Your task to perform on an android device: Search for Mexican restaurants on Maps Image 0: 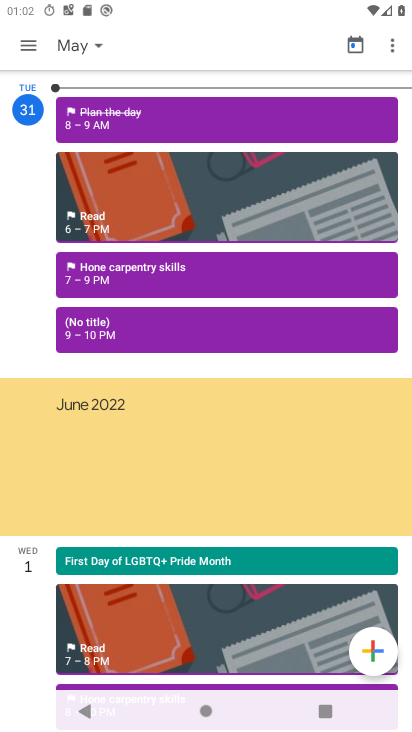
Step 0: press home button
Your task to perform on an android device: Search for Mexican restaurants on Maps Image 1: 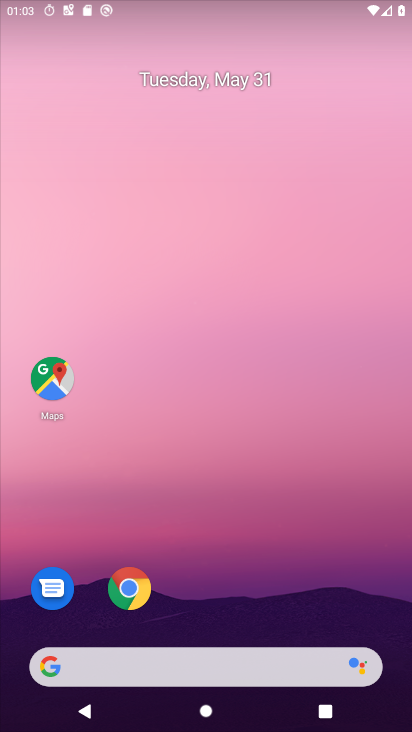
Step 1: drag from (146, 629) to (306, 28)
Your task to perform on an android device: Search for Mexican restaurants on Maps Image 2: 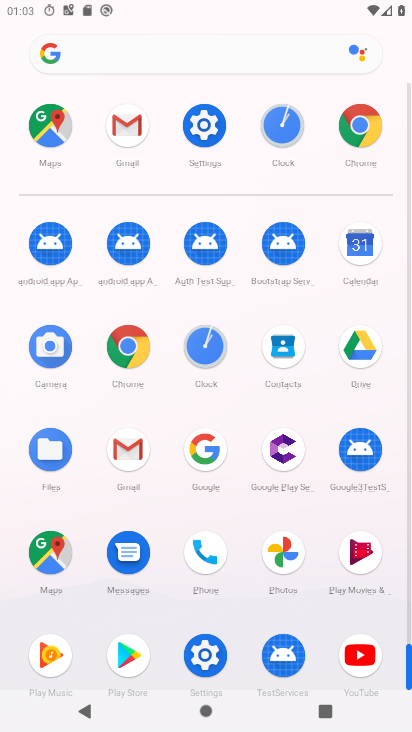
Step 2: click (52, 565)
Your task to perform on an android device: Search for Mexican restaurants on Maps Image 3: 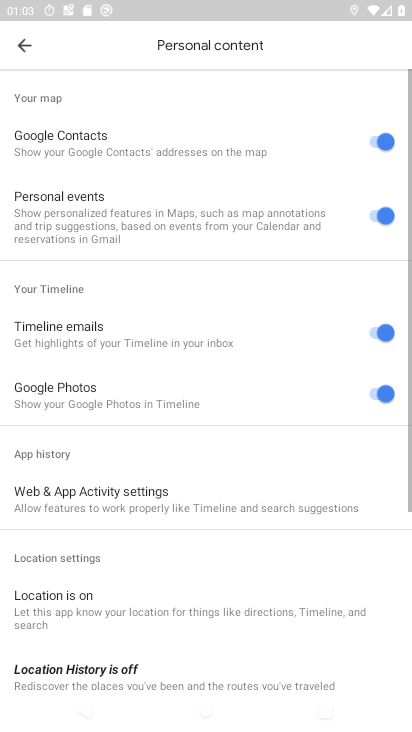
Step 3: press back button
Your task to perform on an android device: Search for Mexican restaurants on Maps Image 4: 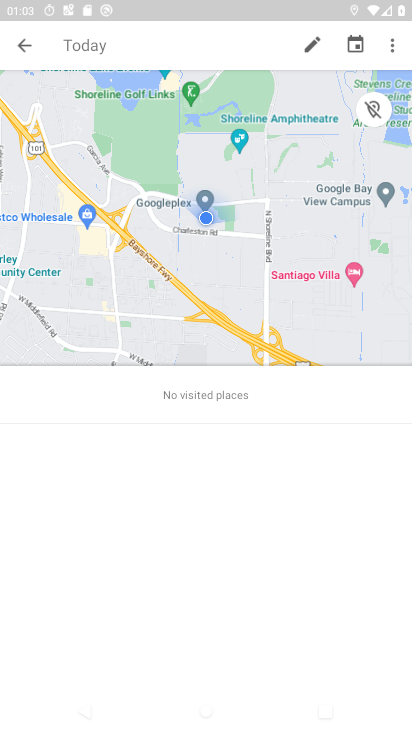
Step 4: press back button
Your task to perform on an android device: Search for Mexican restaurants on Maps Image 5: 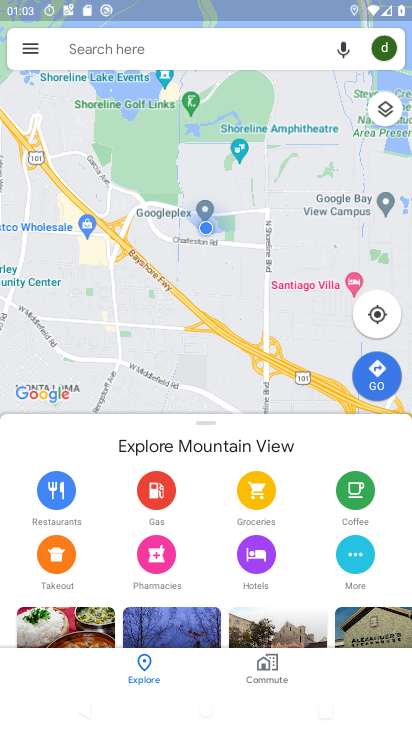
Step 5: click (209, 45)
Your task to perform on an android device: Search for Mexican restaurants on Maps Image 6: 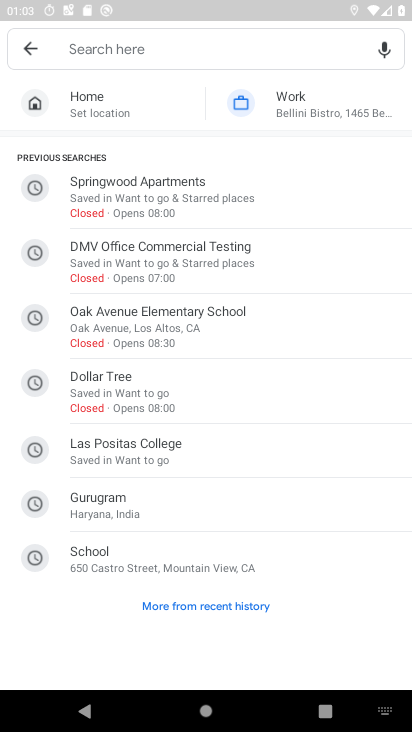
Step 6: type "mexican restaurant"
Your task to perform on an android device: Search for Mexican restaurants on Maps Image 7: 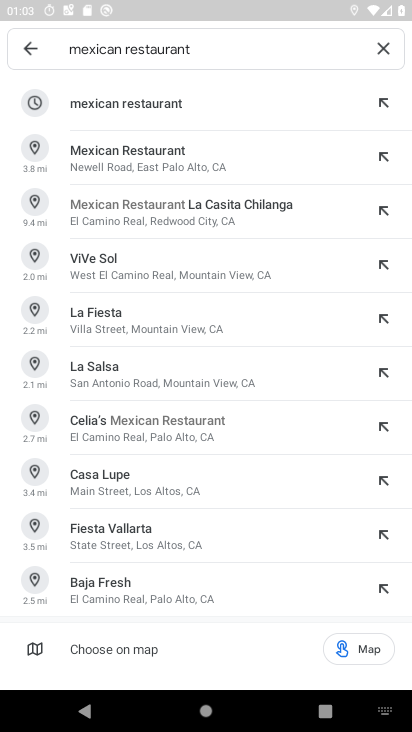
Step 7: click (148, 95)
Your task to perform on an android device: Search for Mexican restaurants on Maps Image 8: 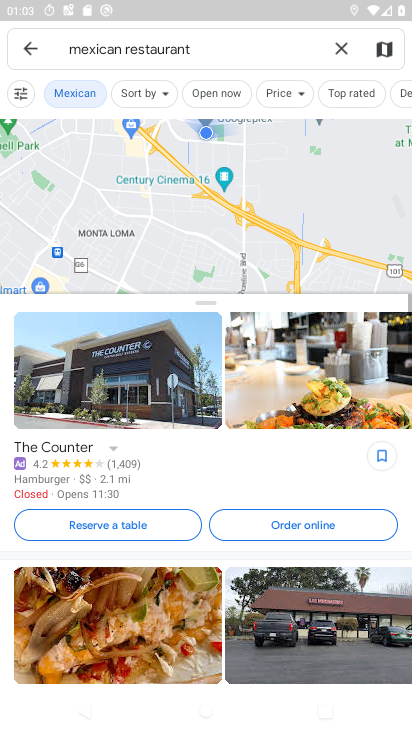
Step 8: task complete